Your task to perform on an android device: Open Google Chrome Image 0: 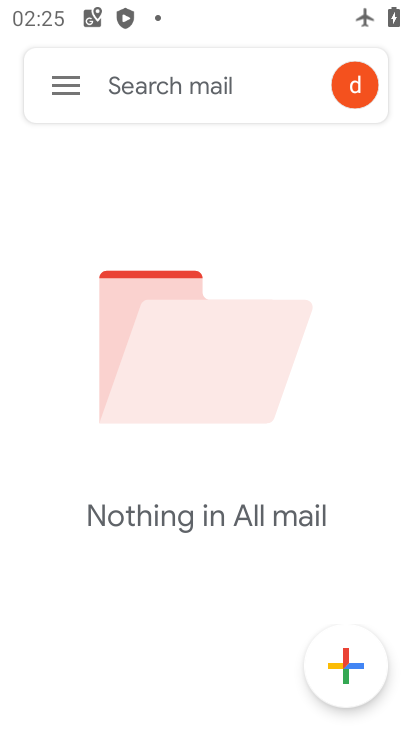
Step 0: press home button
Your task to perform on an android device: Open Google Chrome Image 1: 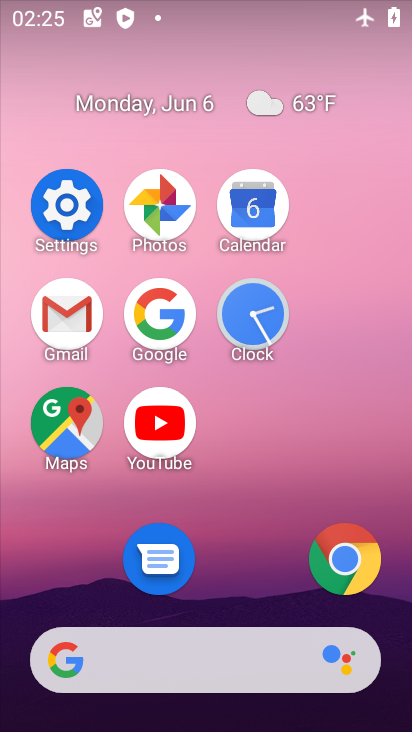
Step 1: click (339, 557)
Your task to perform on an android device: Open Google Chrome Image 2: 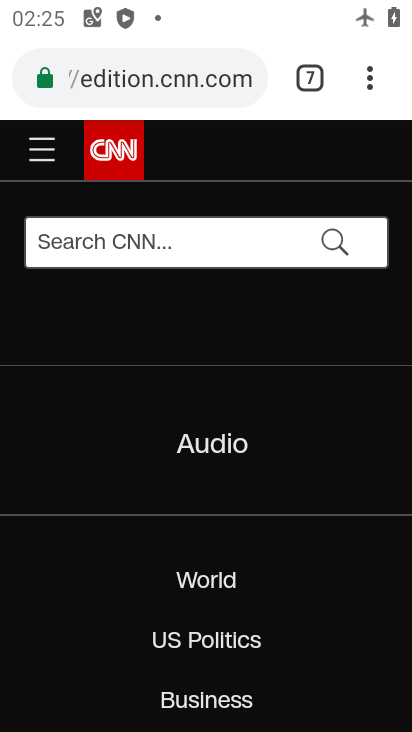
Step 2: task complete